Your task to perform on an android device: turn vacation reply on in the gmail app Image 0: 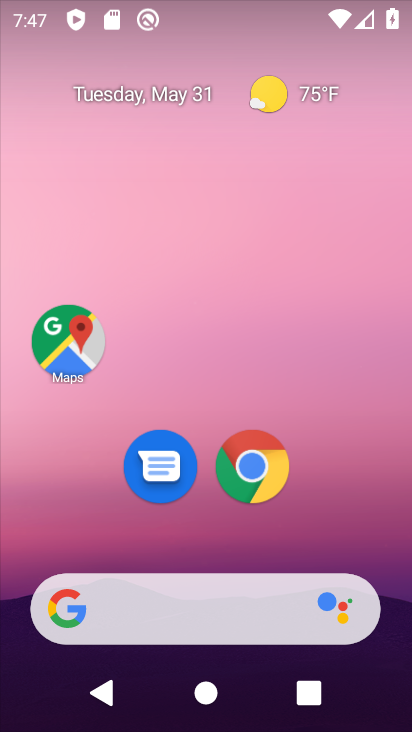
Step 0: drag from (215, 541) to (232, 158)
Your task to perform on an android device: turn vacation reply on in the gmail app Image 1: 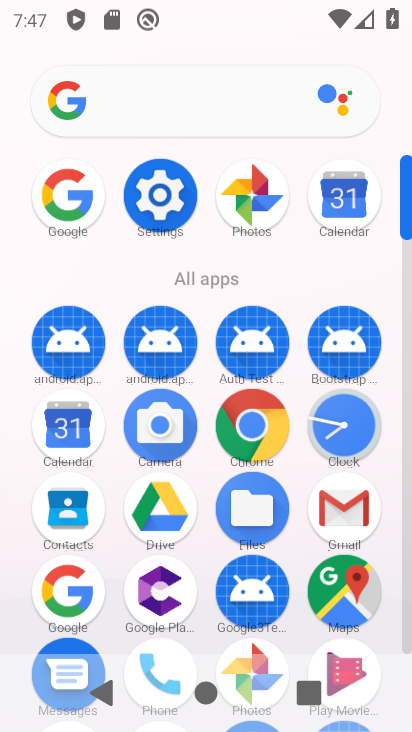
Step 1: click (335, 495)
Your task to perform on an android device: turn vacation reply on in the gmail app Image 2: 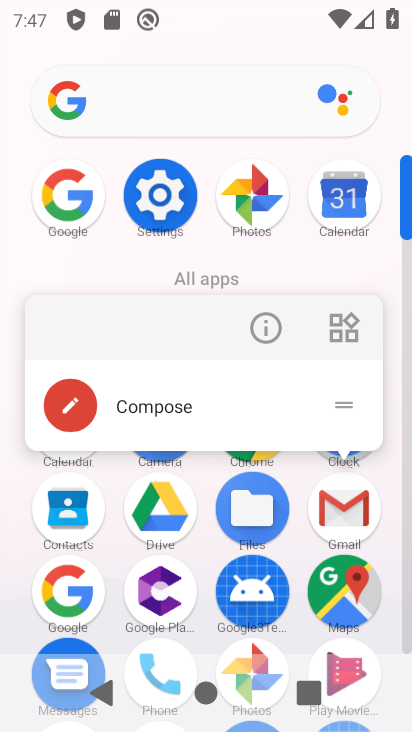
Step 2: click (267, 332)
Your task to perform on an android device: turn vacation reply on in the gmail app Image 3: 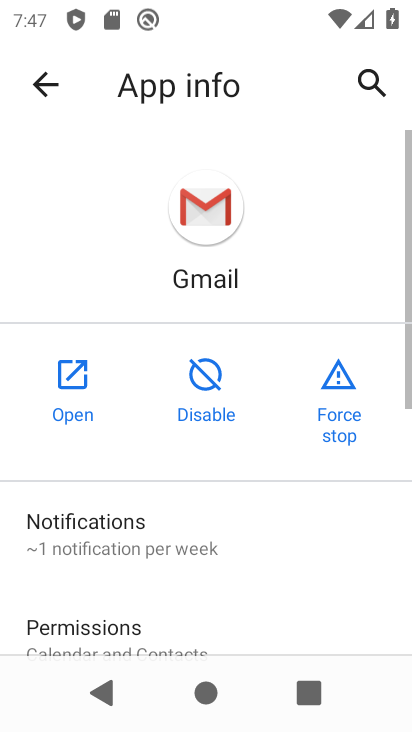
Step 3: click (78, 365)
Your task to perform on an android device: turn vacation reply on in the gmail app Image 4: 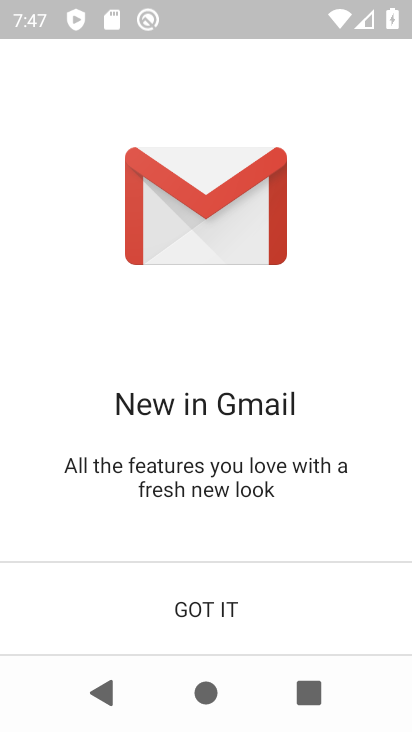
Step 4: click (174, 608)
Your task to perform on an android device: turn vacation reply on in the gmail app Image 5: 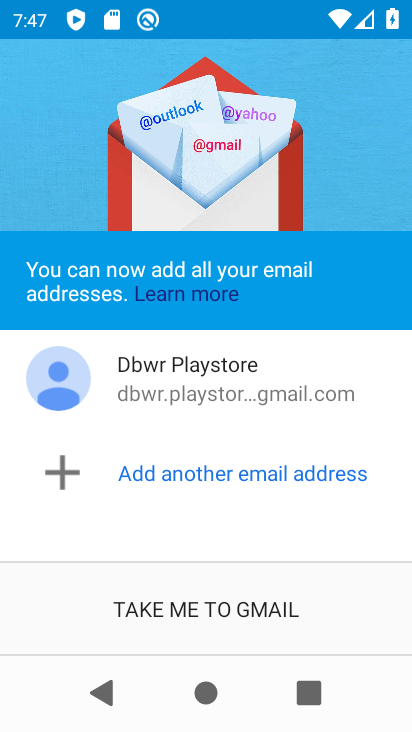
Step 5: drag from (206, 525) to (239, 101)
Your task to perform on an android device: turn vacation reply on in the gmail app Image 6: 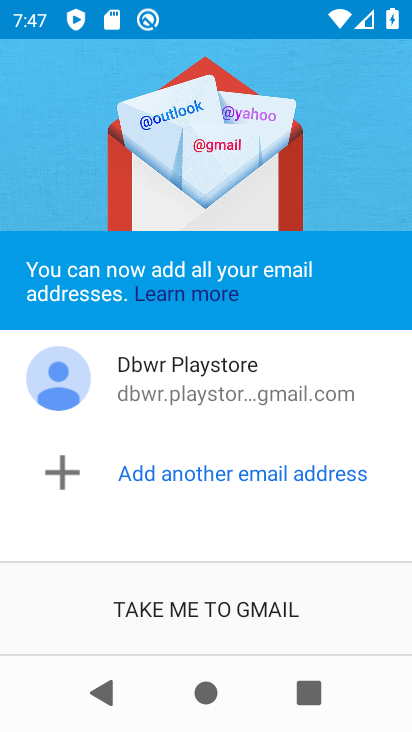
Step 6: click (182, 611)
Your task to perform on an android device: turn vacation reply on in the gmail app Image 7: 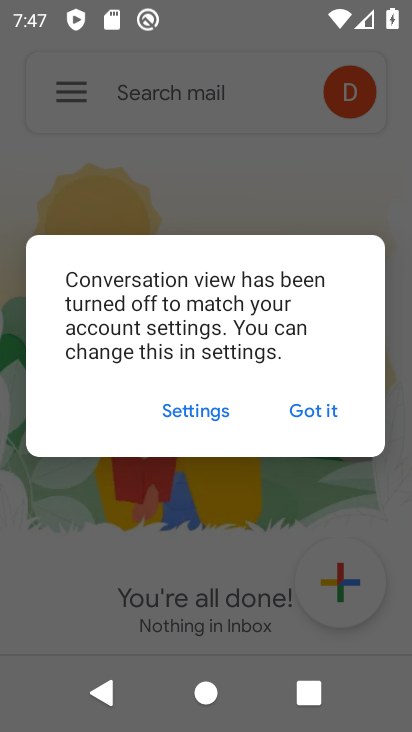
Step 7: click (321, 403)
Your task to perform on an android device: turn vacation reply on in the gmail app Image 8: 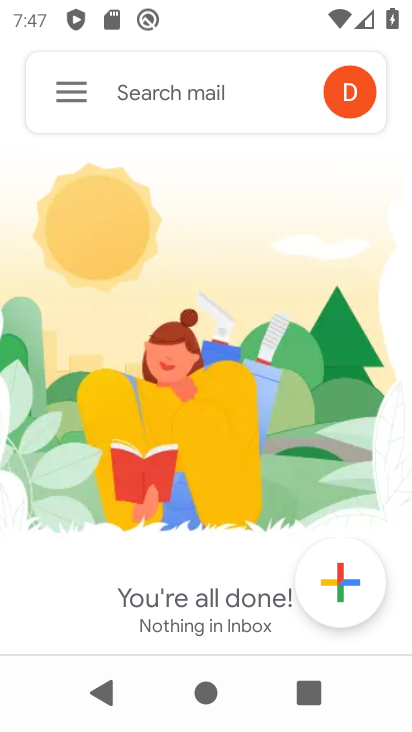
Step 8: click (62, 108)
Your task to perform on an android device: turn vacation reply on in the gmail app Image 9: 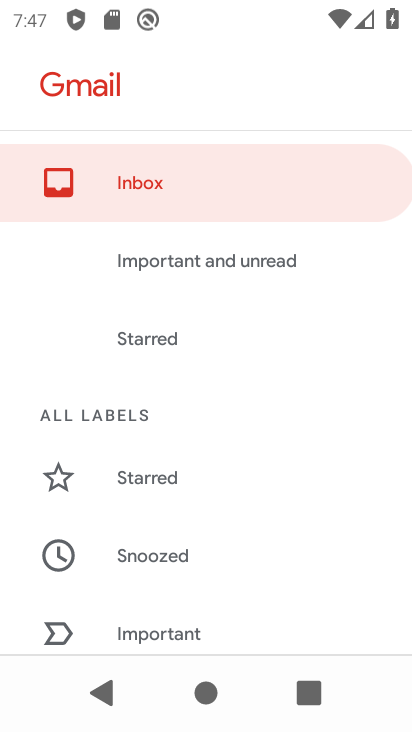
Step 9: drag from (125, 549) to (228, 1)
Your task to perform on an android device: turn vacation reply on in the gmail app Image 10: 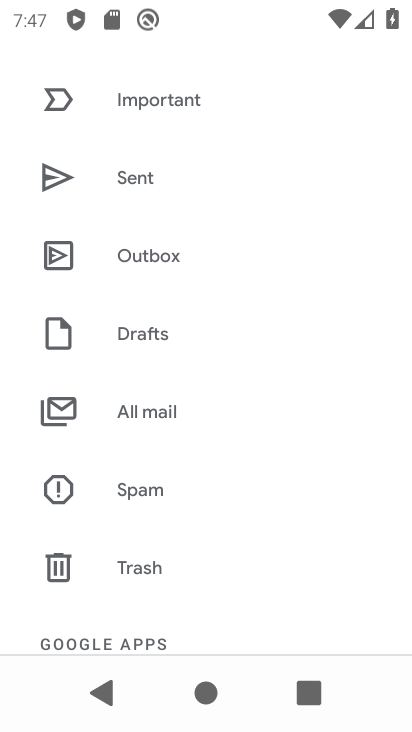
Step 10: drag from (161, 505) to (257, 67)
Your task to perform on an android device: turn vacation reply on in the gmail app Image 11: 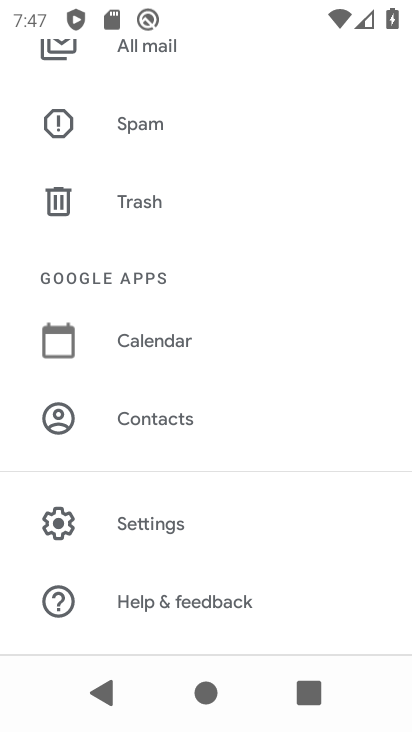
Step 11: click (175, 538)
Your task to perform on an android device: turn vacation reply on in the gmail app Image 12: 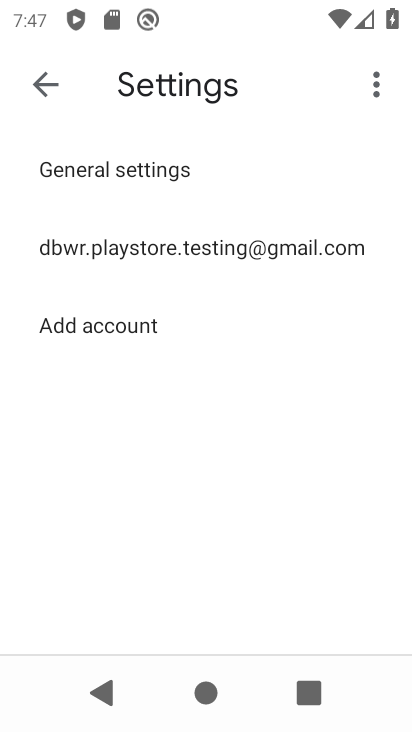
Step 12: drag from (269, 454) to (368, 10)
Your task to perform on an android device: turn vacation reply on in the gmail app Image 13: 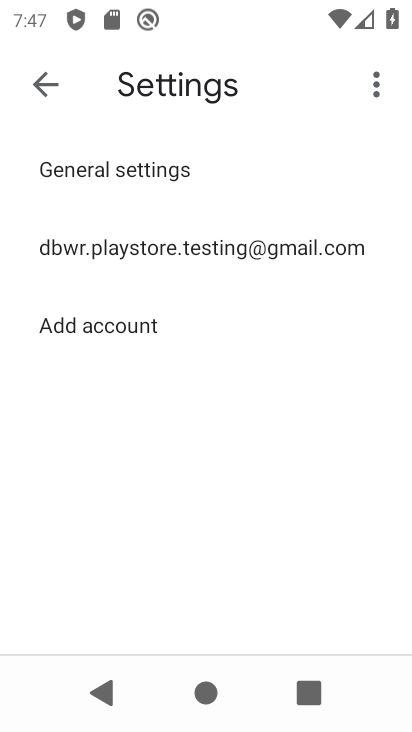
Step 13: click (170, 254)
Your task to perform on an android device: turn vacation reply on in the gmail app Image 14: 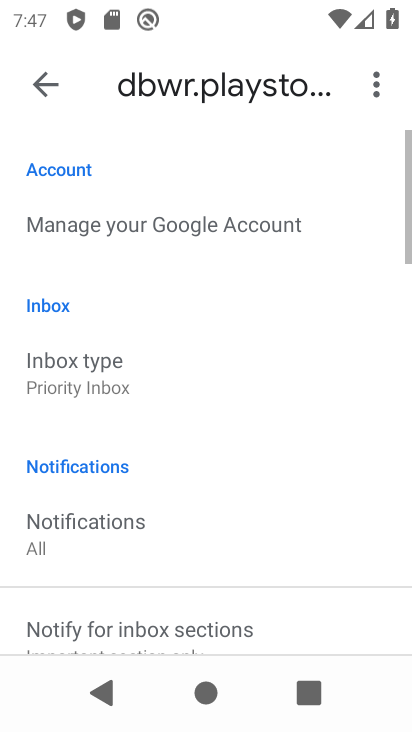
Step 14: drag from (247, 438) to (308, 90)
Your task to perform on an android device: turn vacation reply on in the gmail app Image 15: 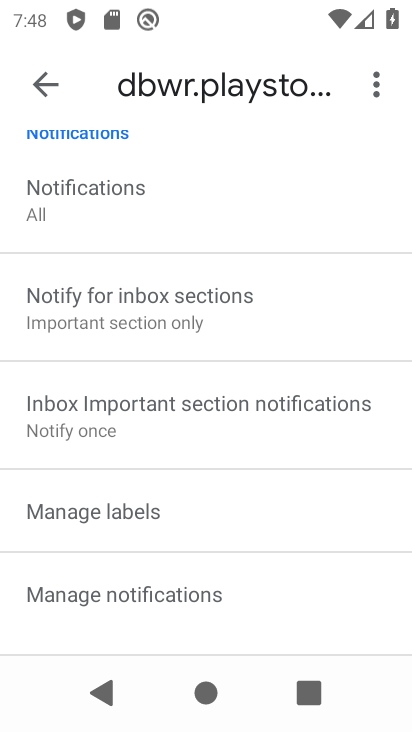
Step 15: drag from (170, 562) to (335, 98)
Your task to perform on an android device: turn vacation reply on in the gmail app Image 16: 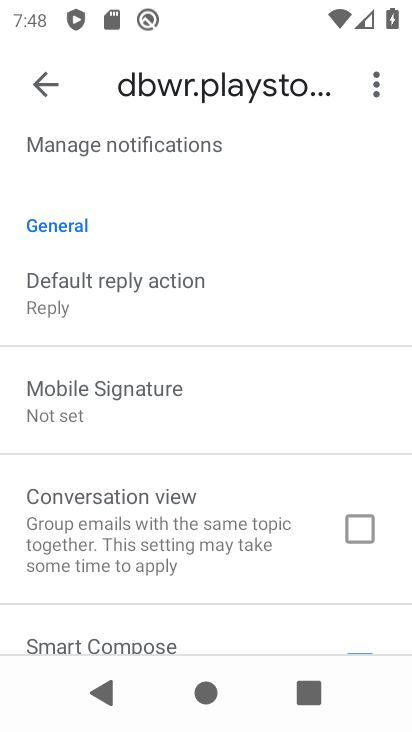
Step 16: drag from (144, 581) to (248, 84)
Your task to perform on an android device: turn vacation reply on in the gmail app Image 17: 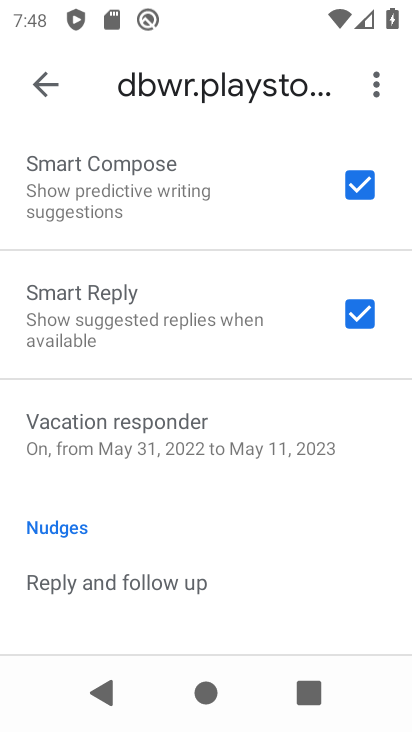
Step 17: click (131, 447)
Your task to perform on an android device: turn vacation reply on in the gmail app Image 18: 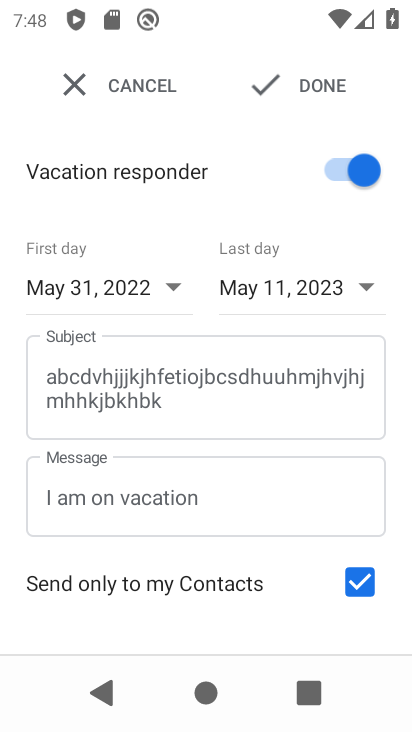
Step 18: drag from (186, 543) to (248, 268)
Your task to perform on an android device: turn vacation reply on in the gmail app Image 19: 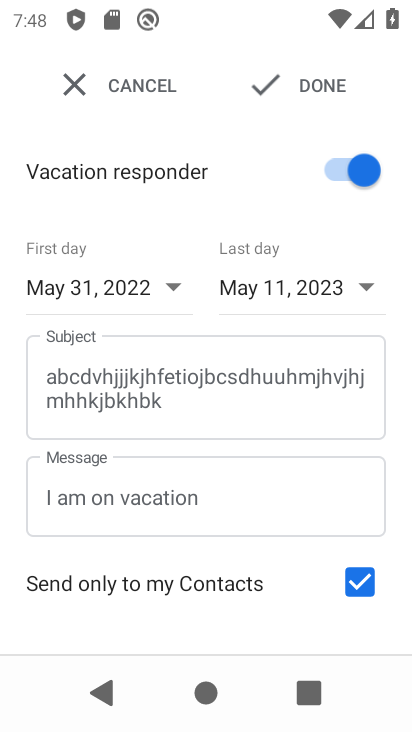
Step 19: drag from (143, 612) to (232, 278)
Your task to perform on an android device: turn vacation reply on in the gmail app Image 20: 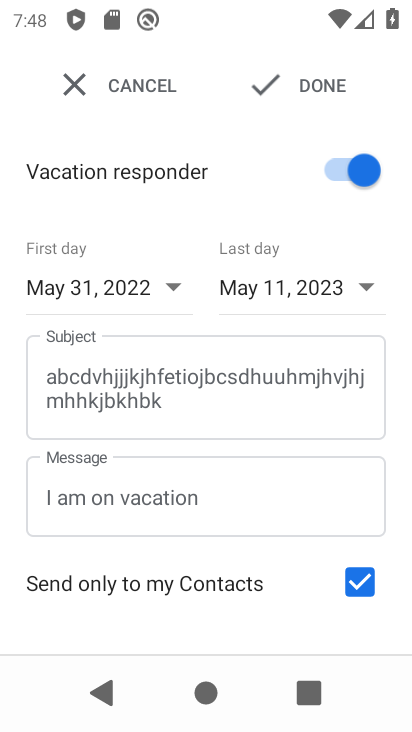
Step 20: click (313, 92)
Your task to perform on an android device: turn vacation reply on in the gmail app Image 21: 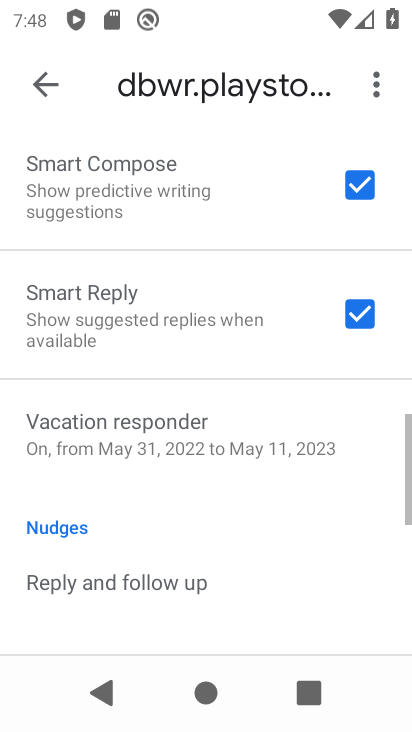
Step 21: task complete